Your task to perform on an android device: Open Wikipedia Image 0: 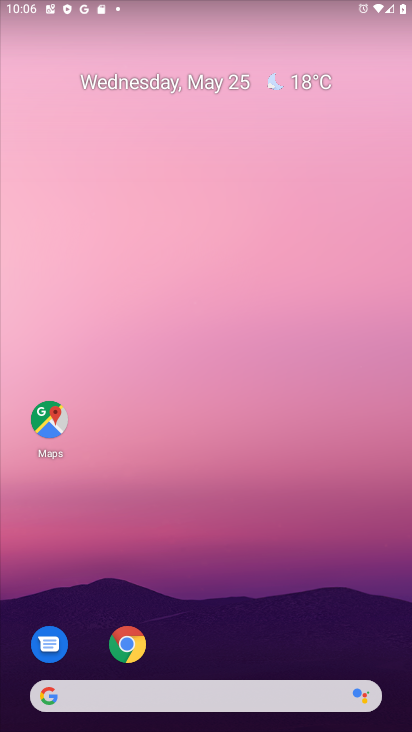
Step 0: click (127, 644)
Your task to perform on an android device: Open Wikipedia Image 1: 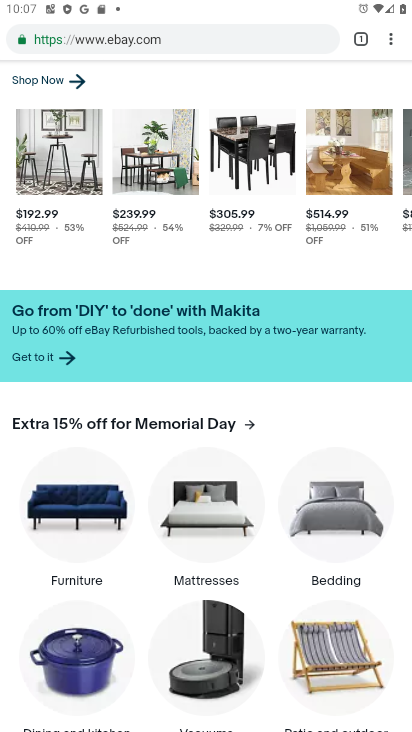
Step 1: click (383, 39)
Your task to perform on an android device: Open Wikipedia Image 2: 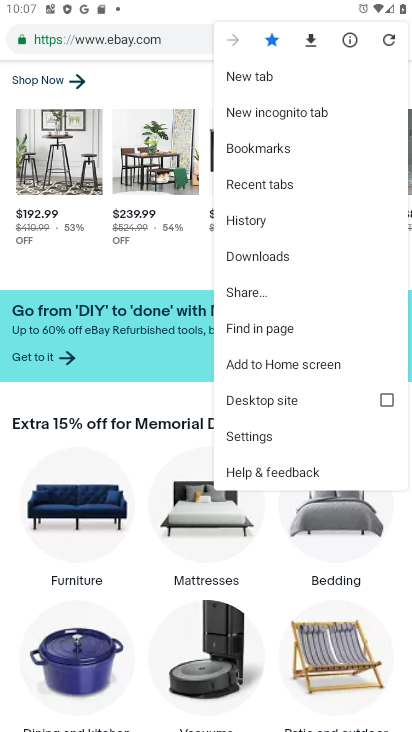
Step 2: click (253, 73)
Your task to perform on an android device: Open Wikipedia Image 3: 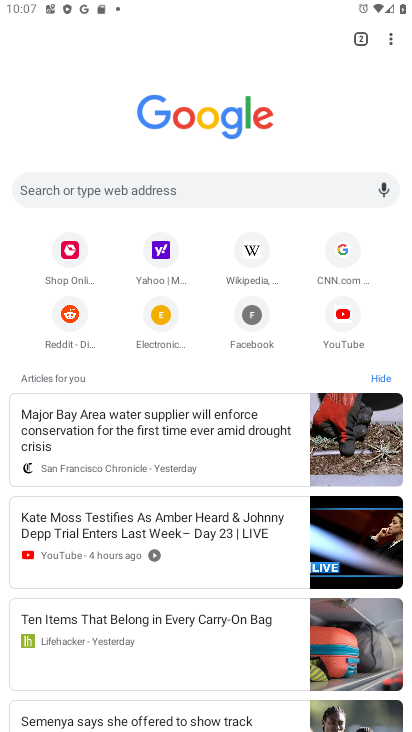
Step 3: click (247, 244)
Your task to perform on an android device: Open Wikipedia Image 4: 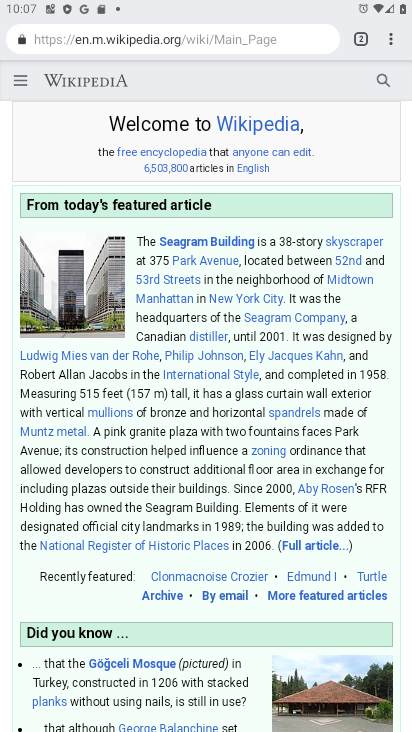
Step 4: task complete